Your task to perform on an android device: toggle improve location accuracy Image 0: 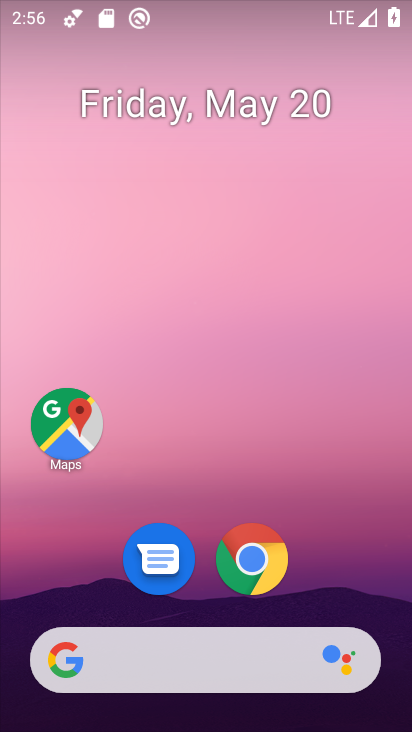
Step 0: drag from (312, 553) to (253, 21)
Your task to perform on an android device: toggle improve location accuracy Image 1: 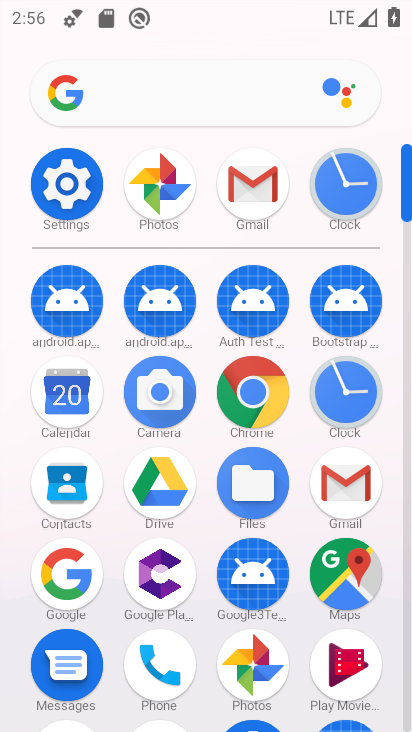
Step 1: click (79, 186)
Your task to perform on an android device: toggle improve location accuracy Image 2: 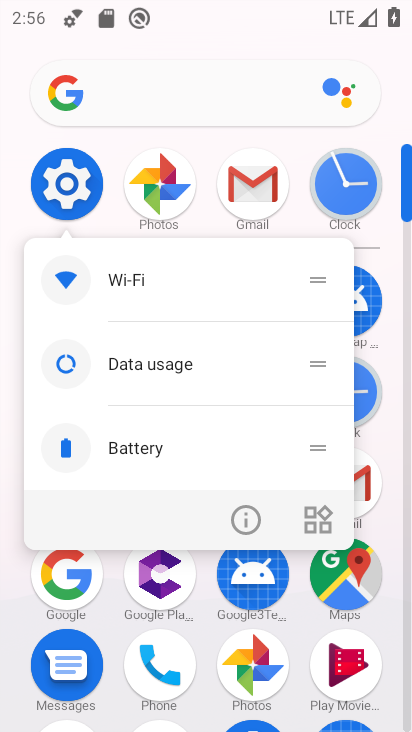
Step 2: click (66, 176)
Your task to perform on an android device: toggle improve location accuracy Image 3: 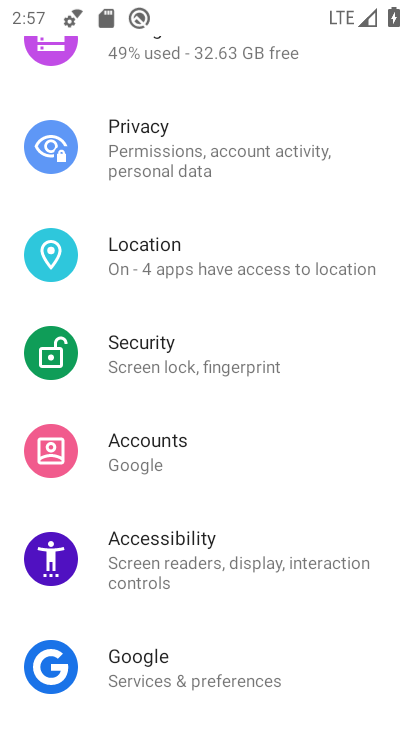
Step 3: click (166, 259)
Your task to perform on an android device: toggle improve location accuracy Image 4: 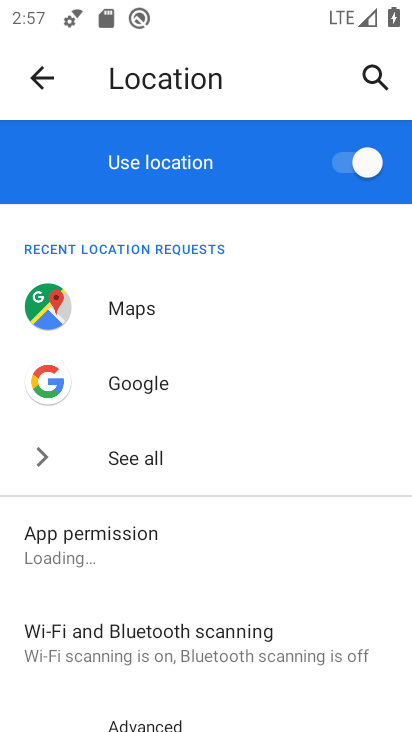
Step 4: drag from (162, 556) to (223, 213)
Your task to perform on an android device: toggle improve location accuracy Image 5: 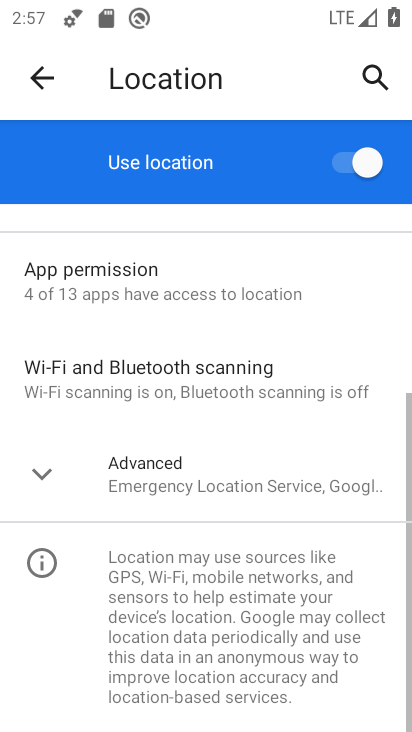
Step 5: click (41, 476)
Your task to perform on an android device: toggle improve location accuracy Image 6: 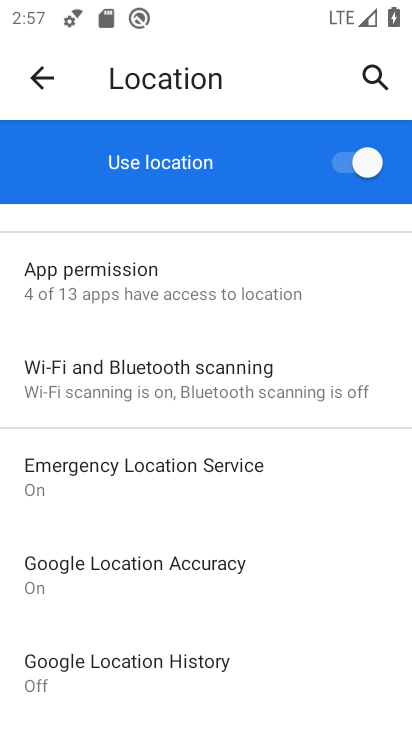
Step 6: drag from (284, 542) to (295, 323)
Your task to perform on an android device: toggle improve location accuracy Image 7: 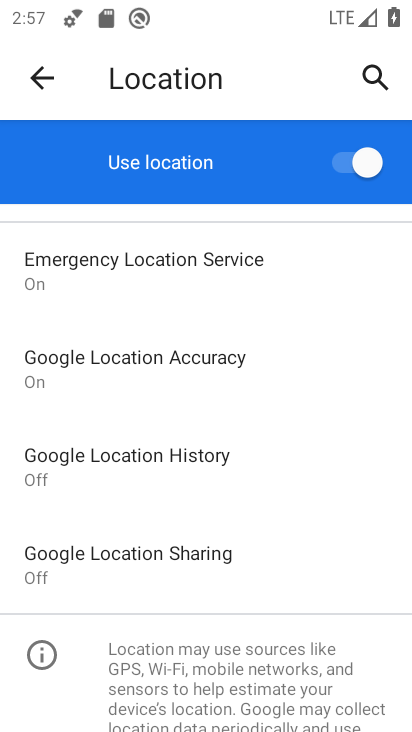
Step 7: click (232, 365)
Your task to perform on an android device: toggle improve location accuracy Image 8: 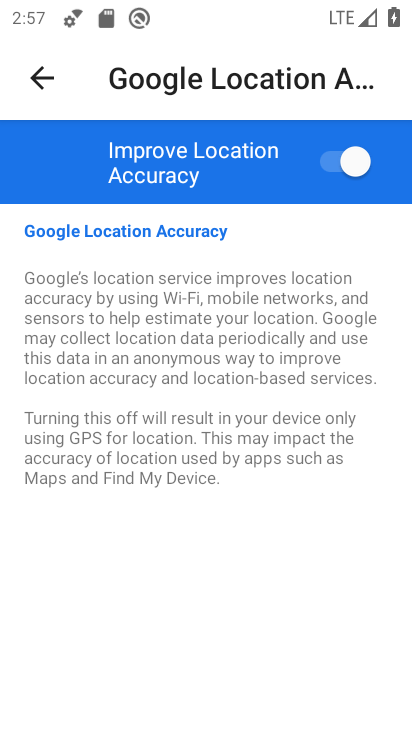
Step 8: click (331, 162)
Your task to perform on an android device: toggle improve location accuracy Image 9: 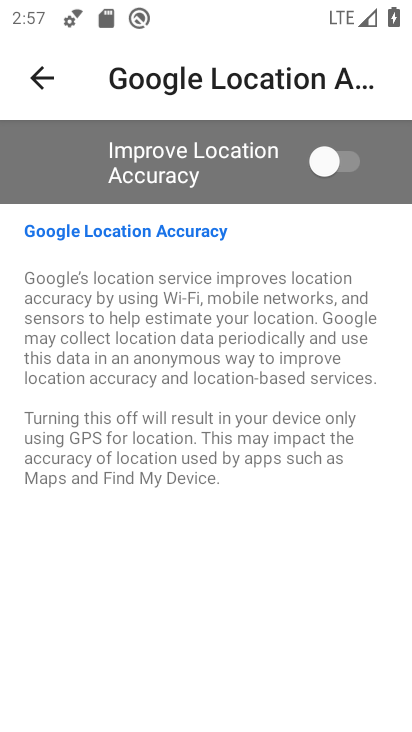
Step 9: task complete